Your task to perform on an android device: star an email in the gmail app Image 0: 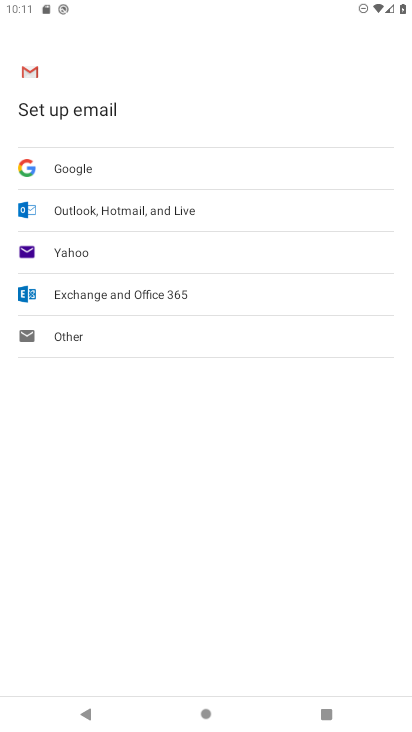
Step 0: press home button
Your task to perform on an android device: star an email in the gmail app Image 1: 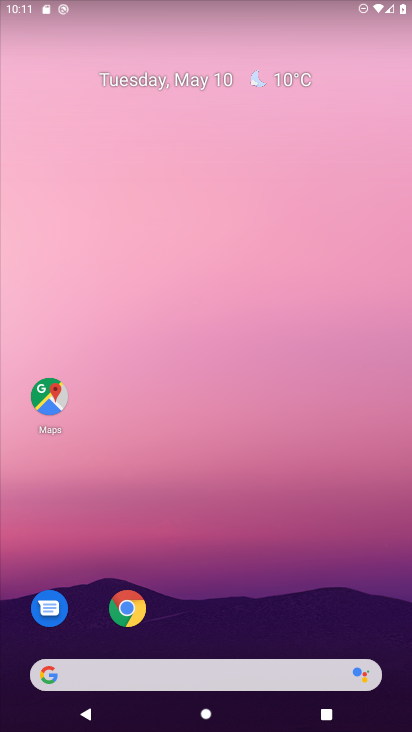
Step 1: drag from (334, 599) to (411, 304)
Your task to perform on an android device: star an email in the gmail app Image 2: 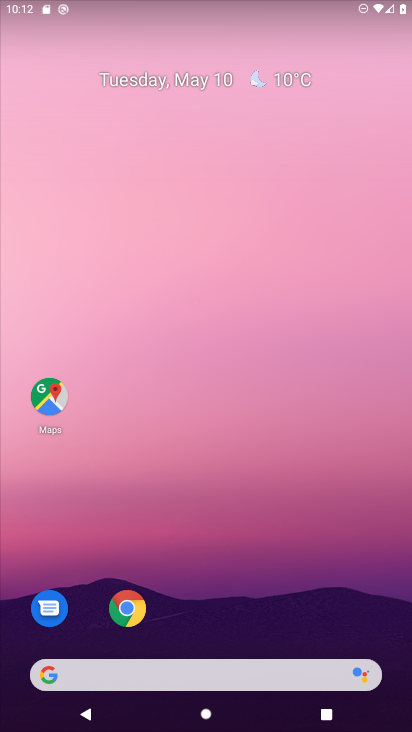
Step 2: drag from (362, 593) to (257, 0)
Your task to perform on an android device: star an email in the gmail app Image 3: 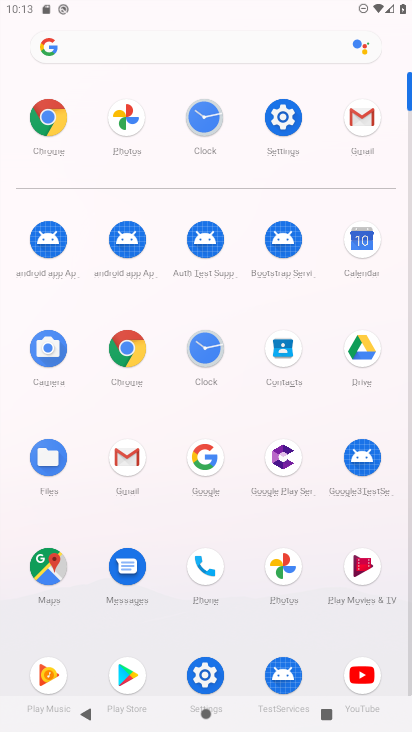
Step 3: click (122, 453)
Your task to perform on an android device: star an email in the gmail app Image 4: 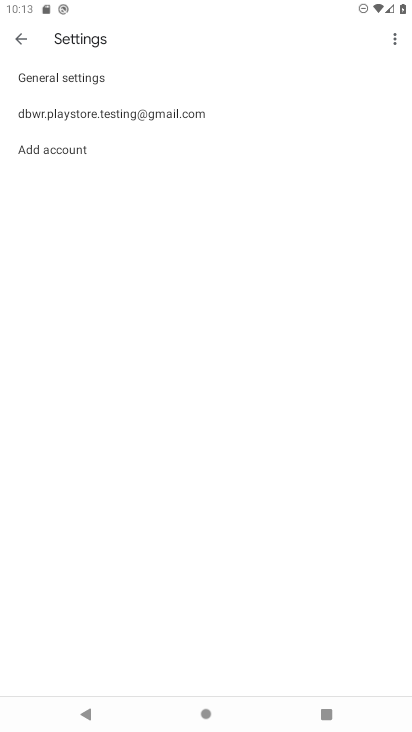
Step 4: task complete